Your task to perform on an android device: see tabs open on other devices in the chrome app Image 0: 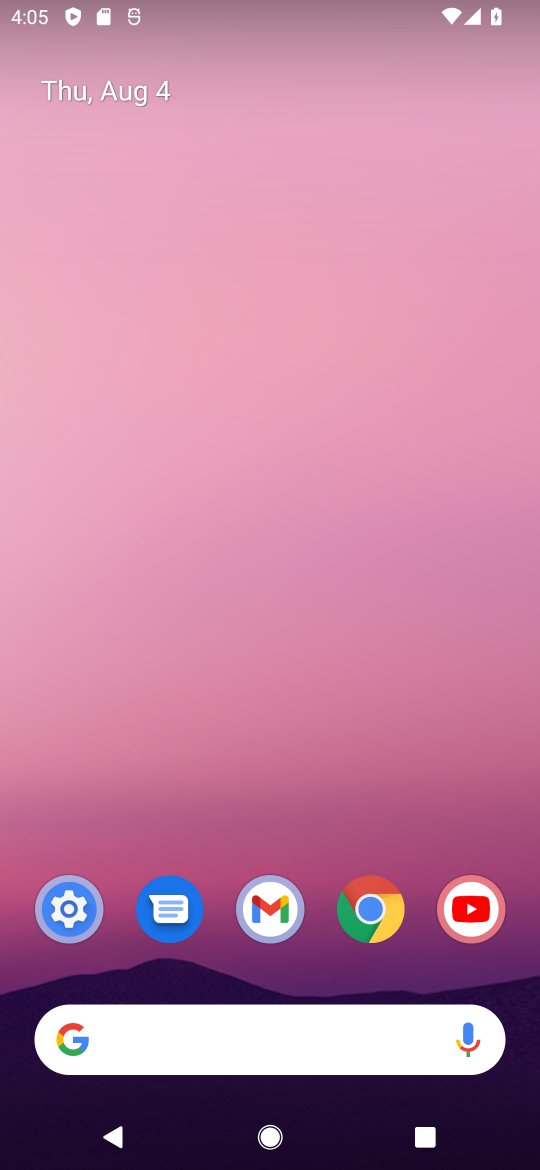
Step 0: click (374, 894)
Your task to perform on an android device: see tabs open on other devices in the chrome app Image 1: 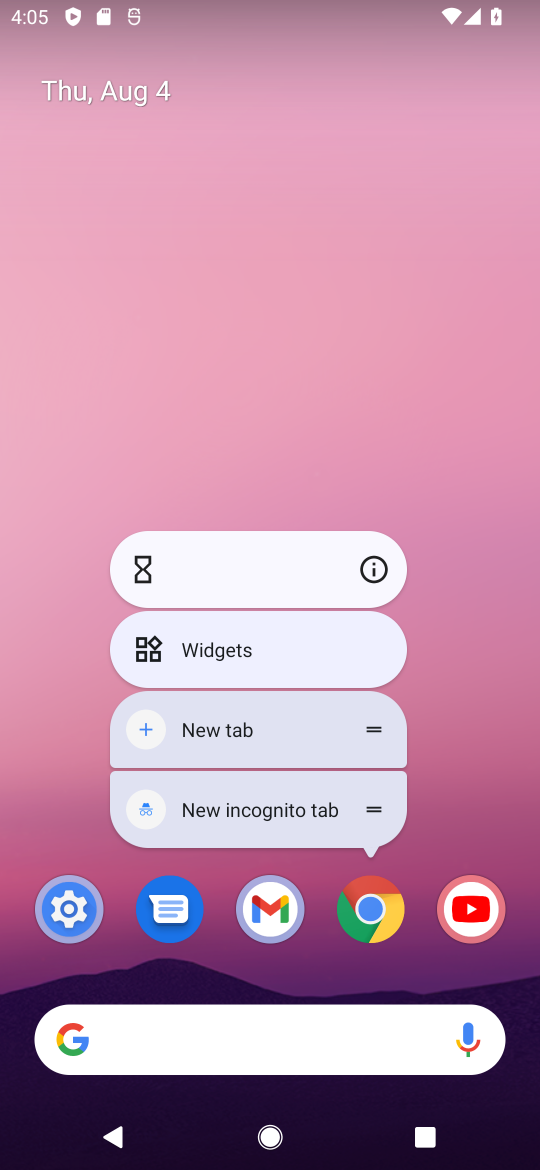
Step 1: click (374, 910)
Your task to perform on an android device: see tabs open on other devices in the chrome app Image 2: 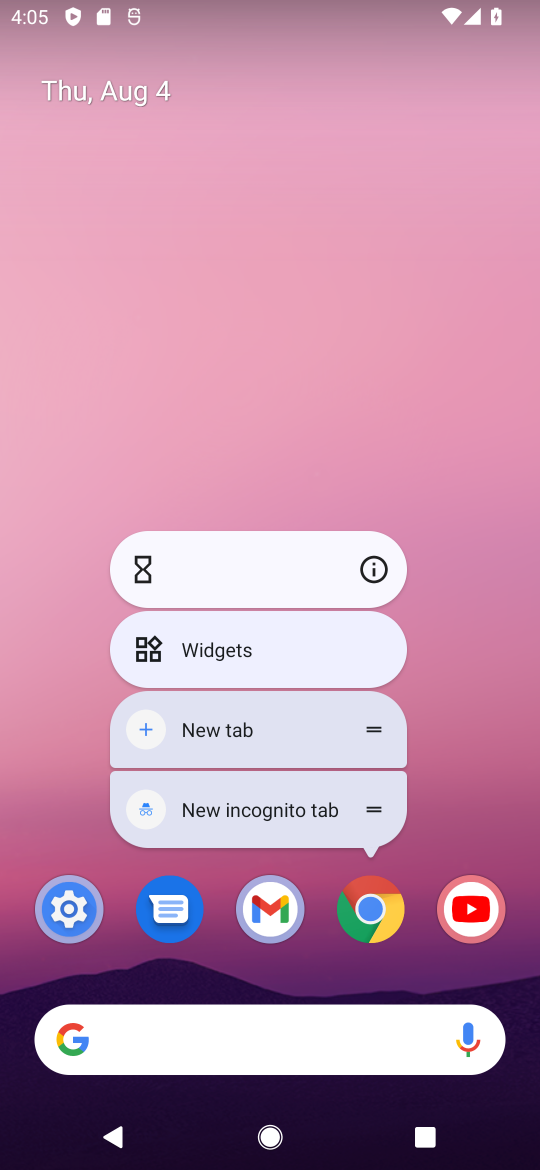
Step 2: click (390, 936)
Your task to perform on an android device: see tabs open on other devices in the chrome app Image 3: 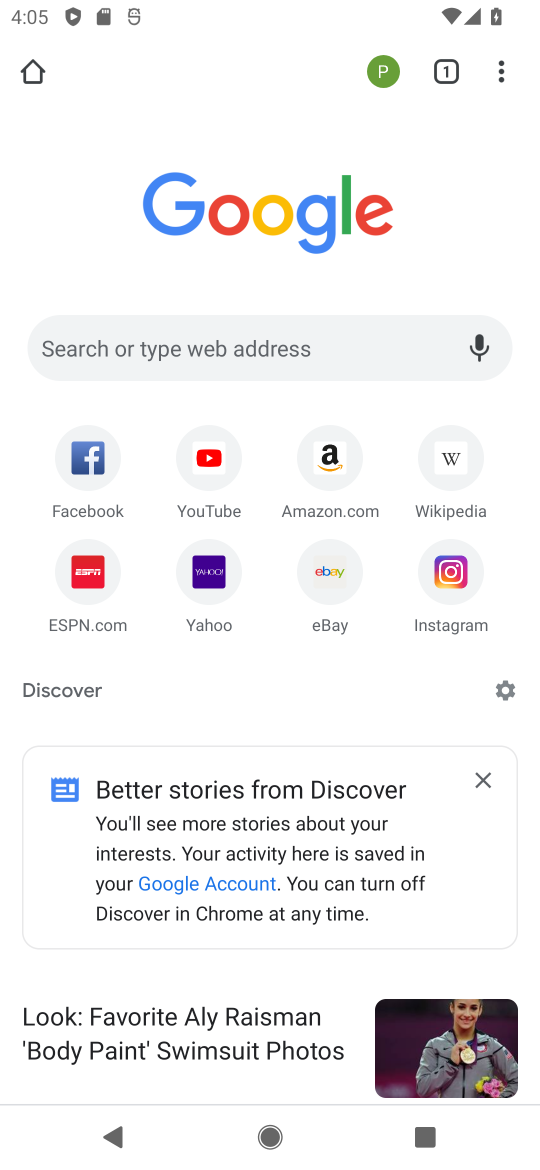
Step 3: click (390, 936)
Your task to perform on an android device: see tabs open on other devices in the chrome app Image 4: 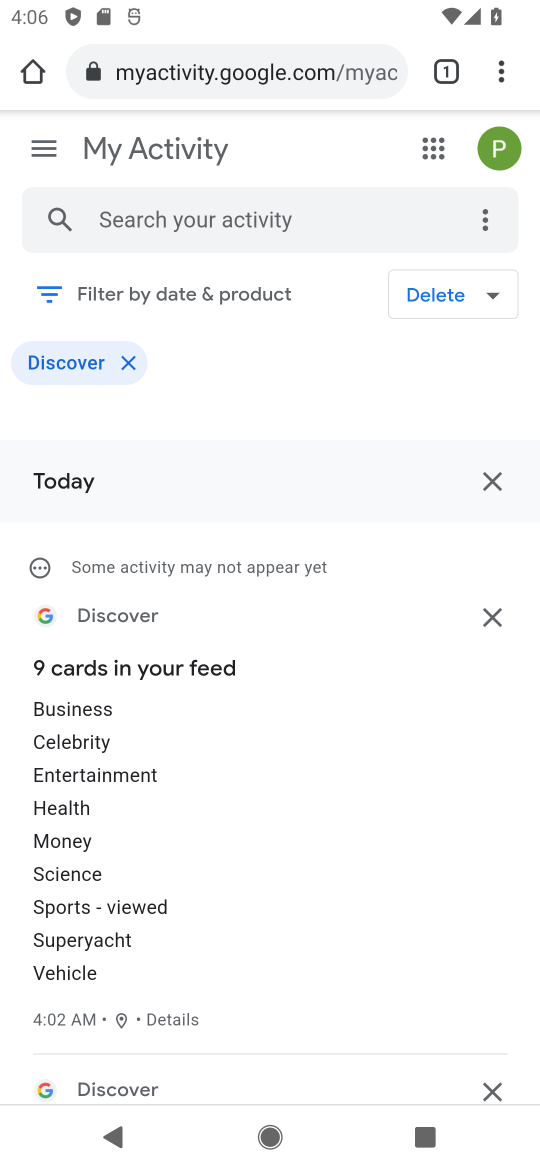
Step 4: press home button
Your task to perform on an android device: see tabs open on other devices in the chrome app Image 5: 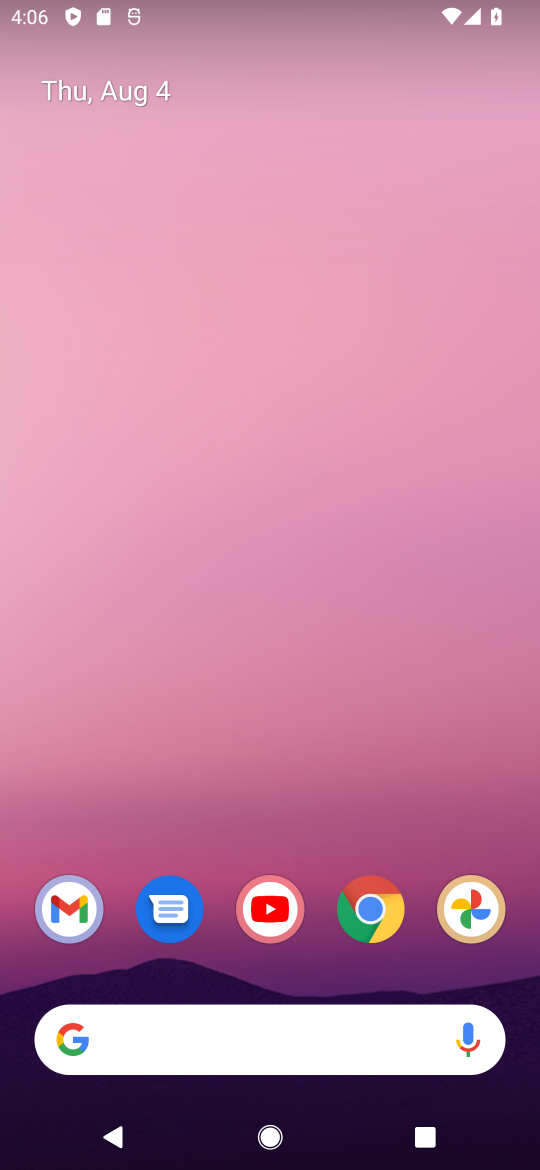
Step 5: click (379, 904)
Your task to perform on an android device: see tabs open on other devices in the chrome app Image 6: 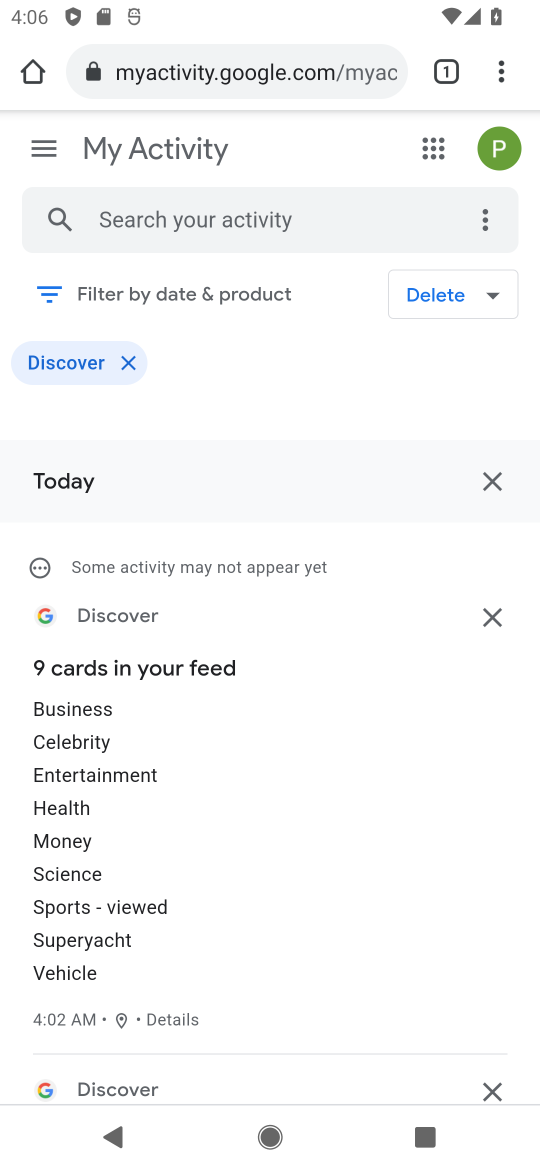
Step 6: task complete